Your task to perform on an android device: turn off airplane mode Image 0: 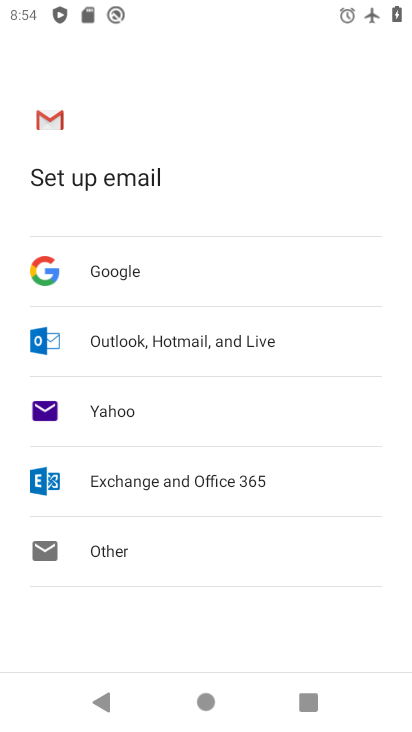
Step 0: press home button
Your task to perform on an android device: turn off airplane mode Image 1: 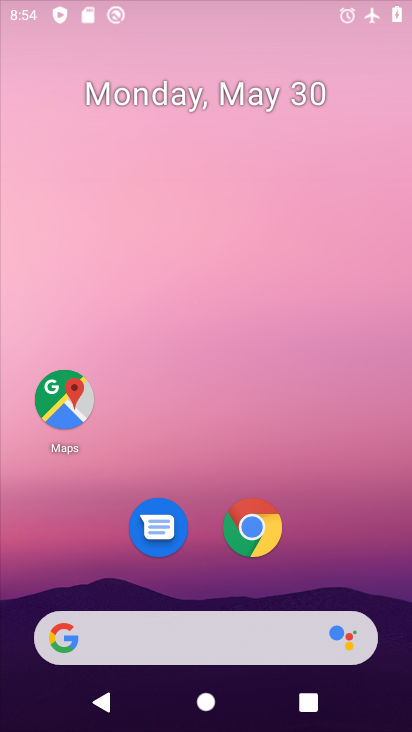
Step 1: drag from (319, 659) to (340, 15)
Your task to perform on an android device: turn off airplane mode Image 2: 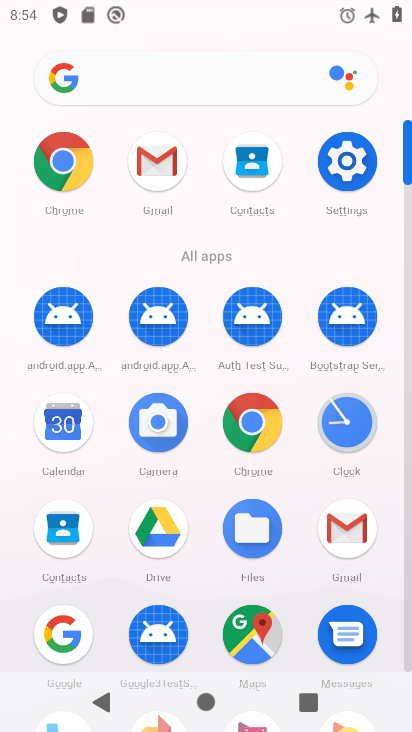
Step 2: click (344, 157)
Your task to perform on an android device: turn off airplane mode Image 3: 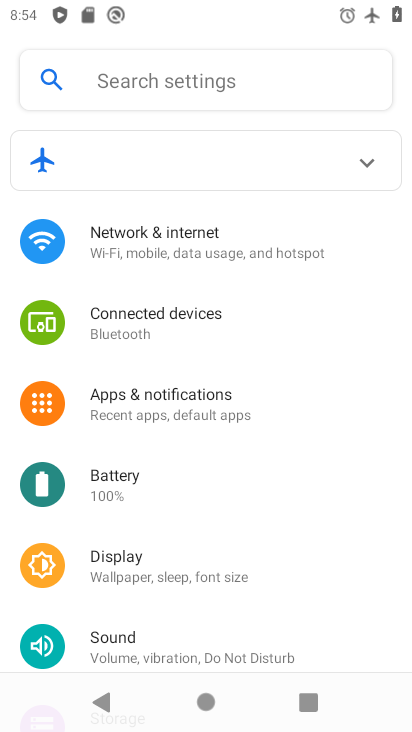
Step 3: click (202, 250)
Your task to perform on an android device: turn off airplane mode Image 4: 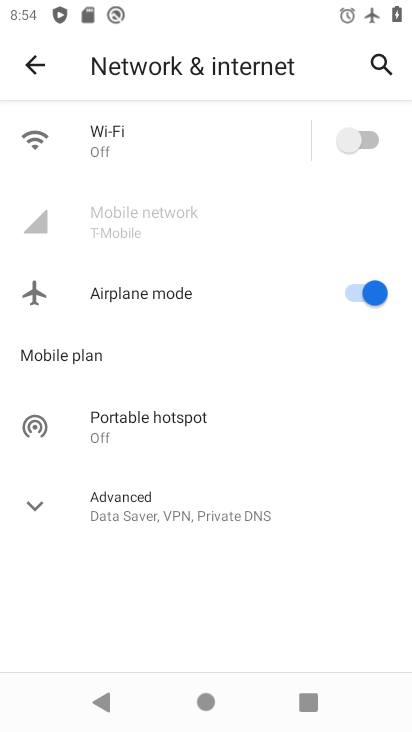
Step 4: click (368, 290)
Your task to perform on an android device: turn off airplane mode Image 5: 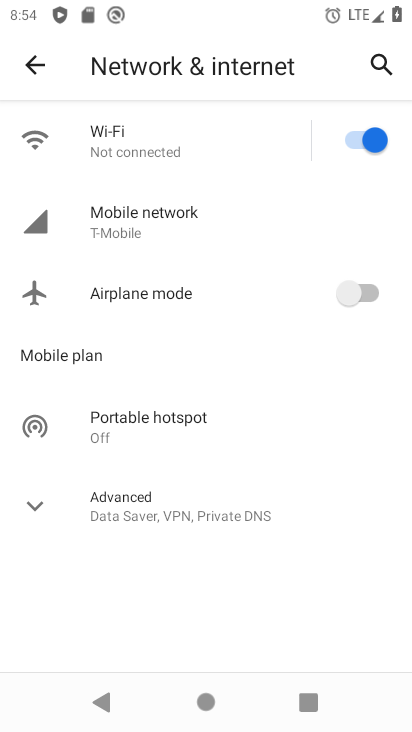
Step 5: task complete